Your task to perform on an android device: manage bookmarks in the chrome app Image 0: 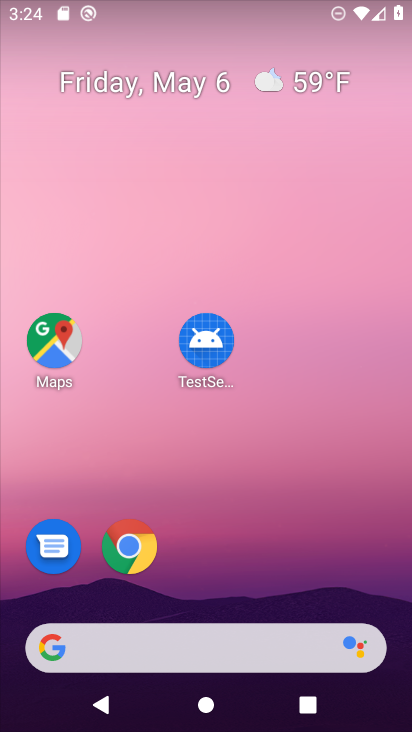
Step 0: click (143, 556)
Your task to perform on an android device: manage bookmarks in the chrome app Image 1: 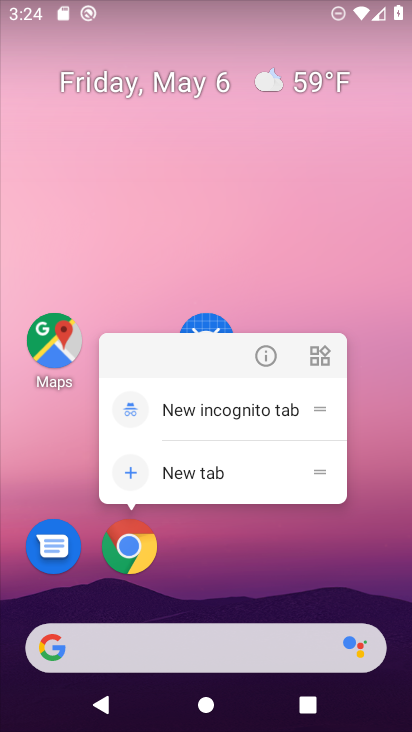
Step 1: click (127, 536)
Your task to perform on an android device: manage bookmarks in the chrome app Image 2: 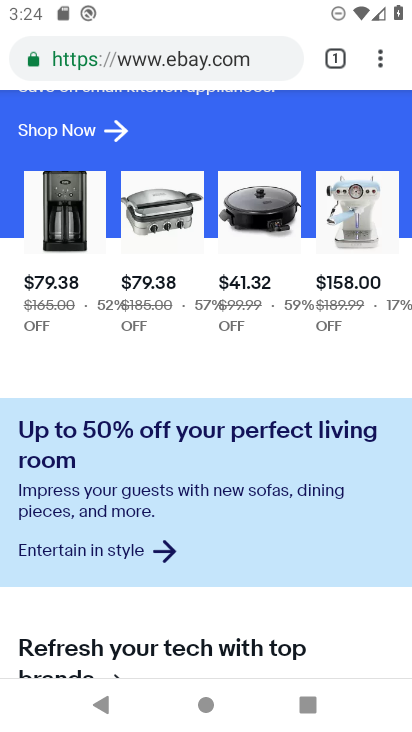
Step 2: click (379, 59)
Your task to perform on an android device: manage bookmarks in the chrome app Image 3: 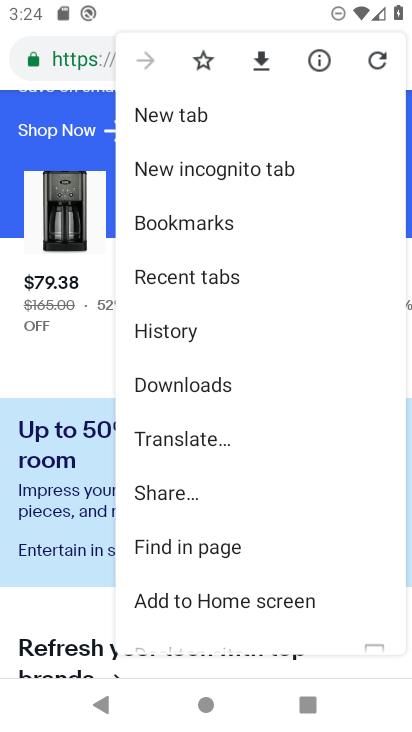
Step 3: click (166, 231)
Your task to perform on an android device: manage bookmarks in the chrome app Image 4: 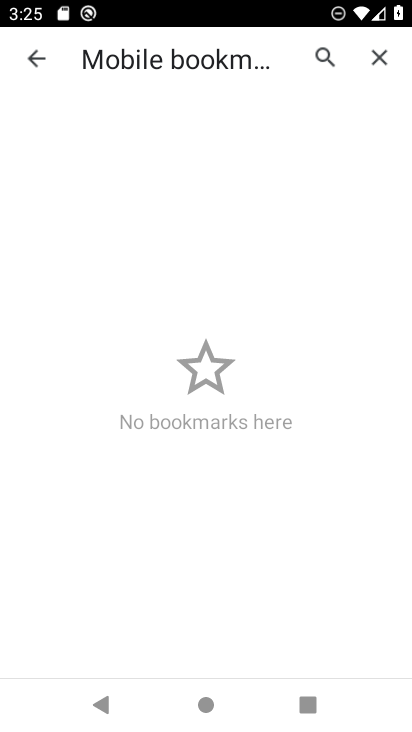
Step 4: task complete